Your task to perform on an android device: Open the web browser Image 0: 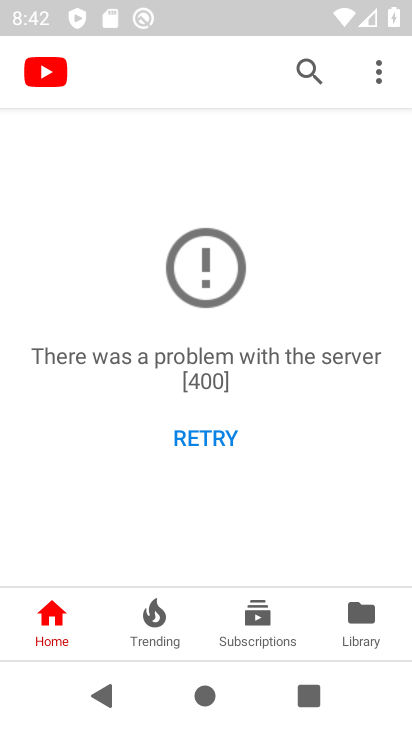
Step 0: press home button
Your task to perform on an android device: Open the web browser Image 1: 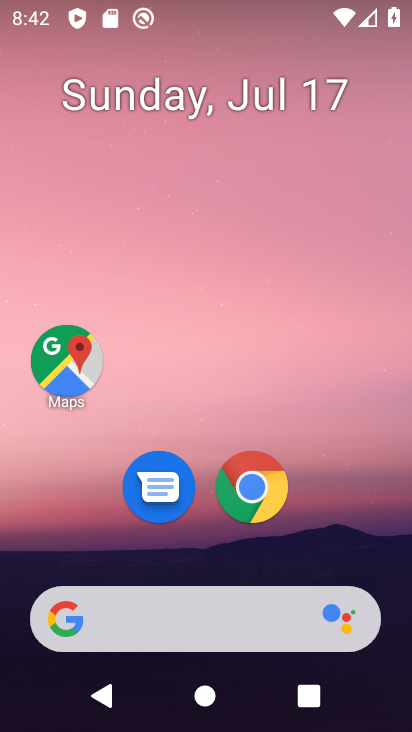
Step 1: click (55, 618)
Your task to perform on an android device: Open the web browser Image 2: 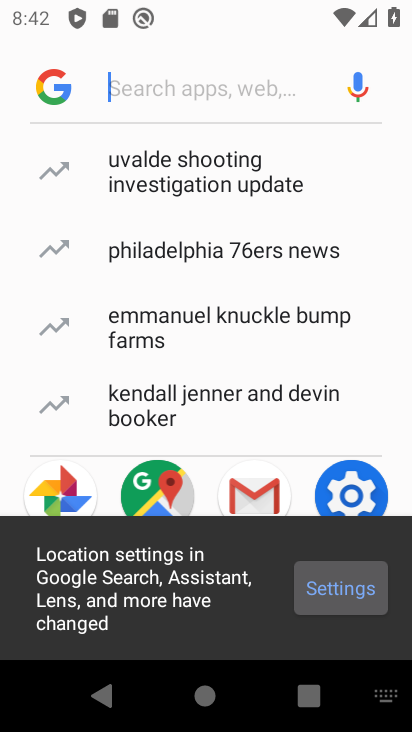
Step 2: click (57, 82)
Your task to perform on an android device: Open the web browser Image 3: 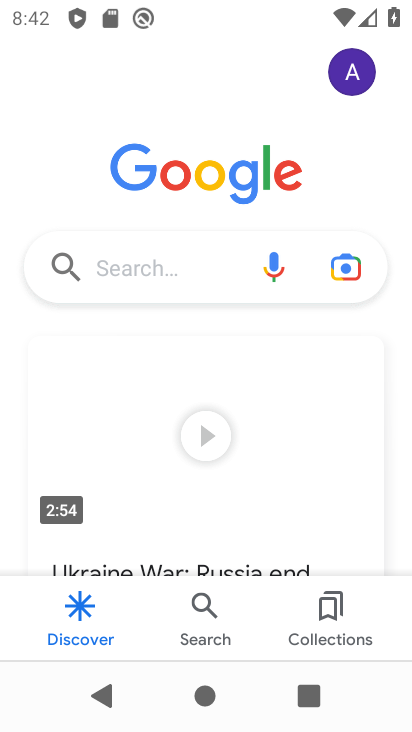
Step 3: task complete